Your task to perform on an android device: all mails in gmail Image 0: 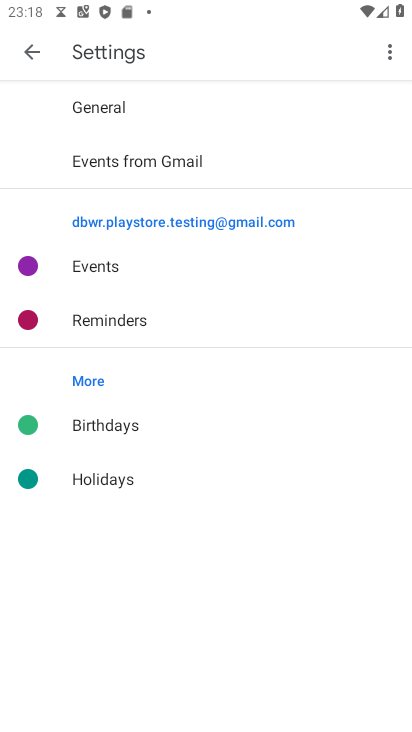
Step 0: press back button
Your task to perform on an android device: all mails in gmail Image 1: 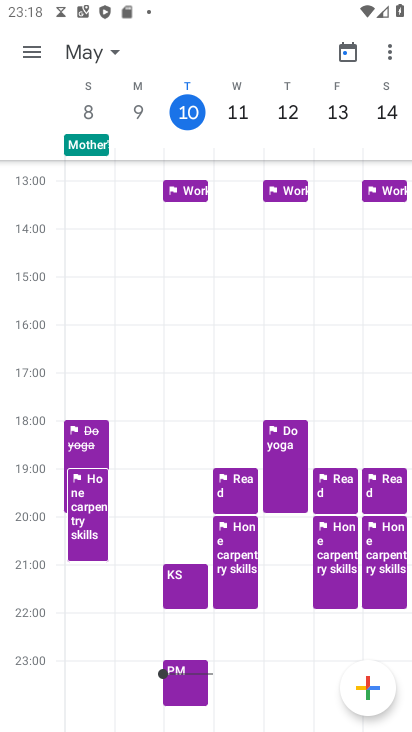
Step 1: press back button
Your task to perform on an android device: all mails in gmail Image 2: 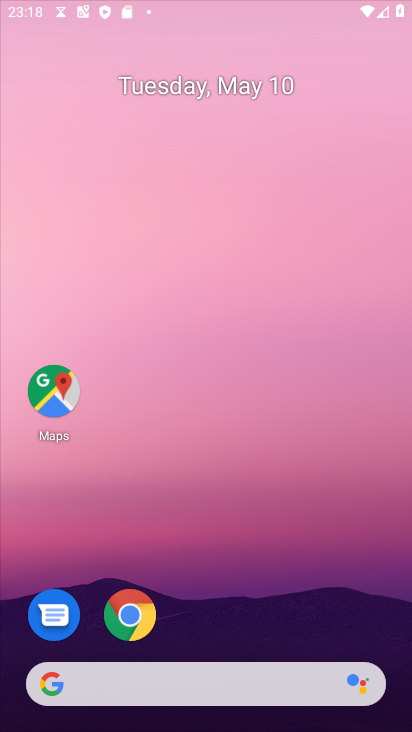
Step 2: press back button
Your task to perform on an android device: all mails in gmail Image 3: 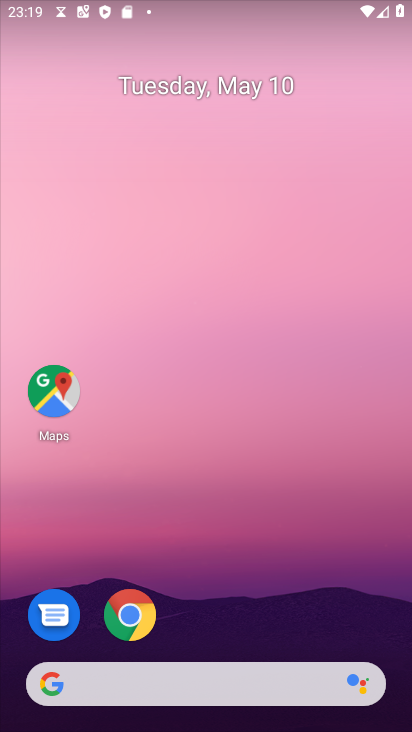
Step 3: drag from (251, 586) to (244, 77)
Your task to perform on an android device: all mails in gmail Image 4: 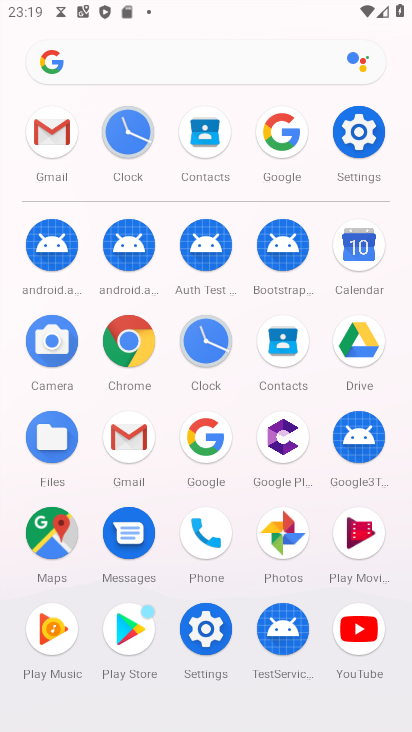
Step 4: click (49, 134)
Your task to perform on an android device: all mails in gmail Image 5: 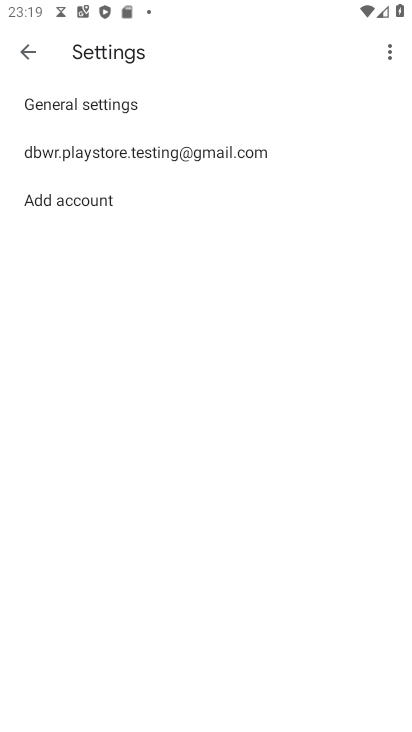
Step 5: press back button
Your task to perform on an android device: all mails in gmail Image 6: 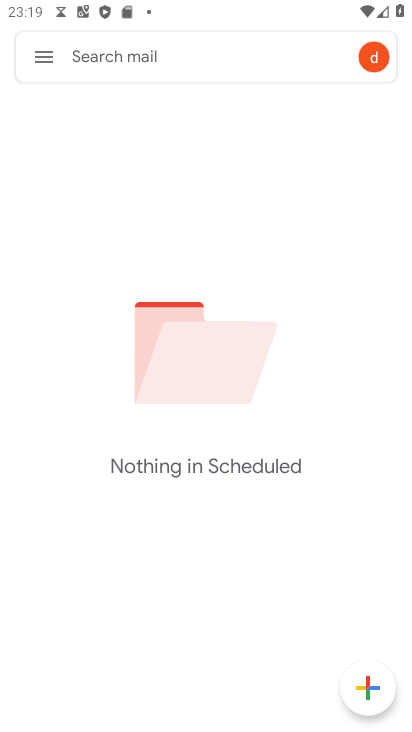
Step 6: click (47, 57)
Your task to perform on an android device: all mails in gmail Image 7: 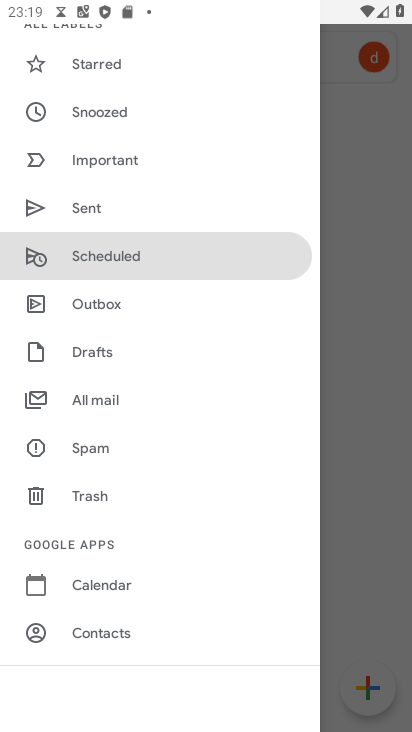
Step 7: click (107, 394)
Your task to perform on an android device: all mails in gmail Image 8: 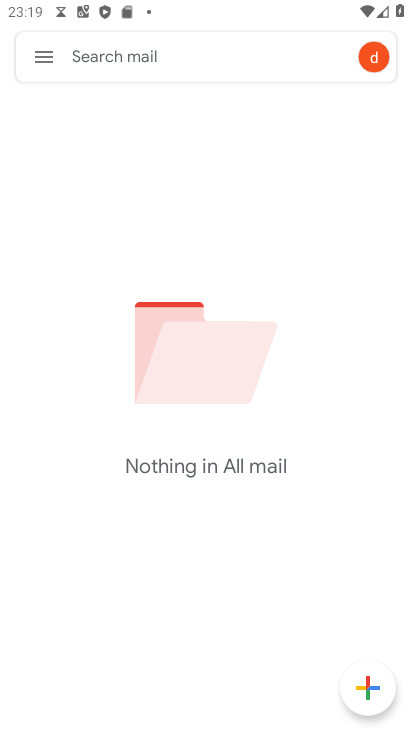
Step 8: task complete